Your task to perform on an android device: change alarm snooze length Image 0: 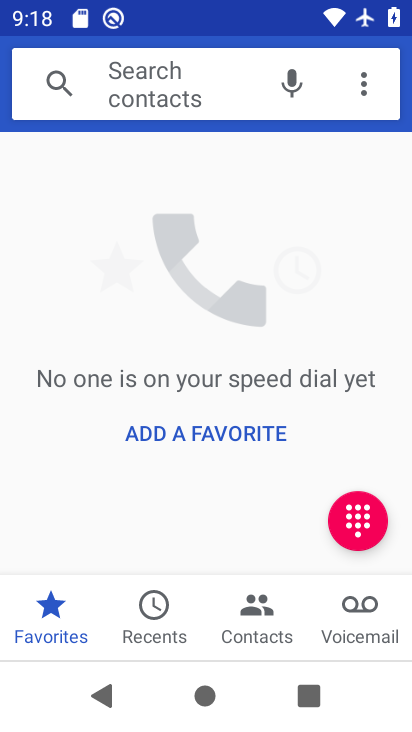
Step 0: press home button
Your task to perform on an android device: change alarm snooze length Image 1: 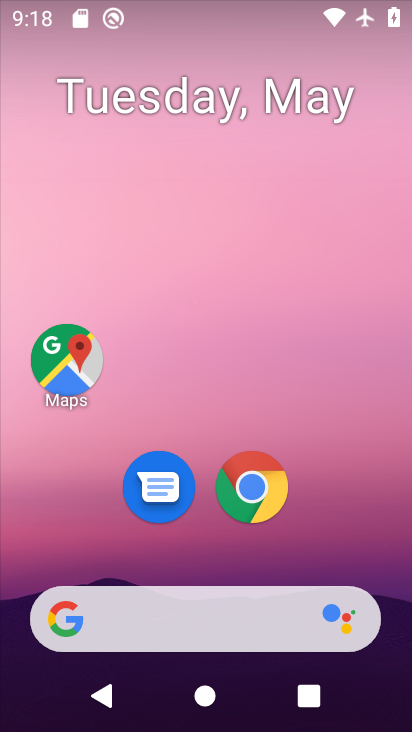
Step 1: drag from (171, 627) to (298, 19)
Your task to perform on an android device: change alarm snooze length Image 2: 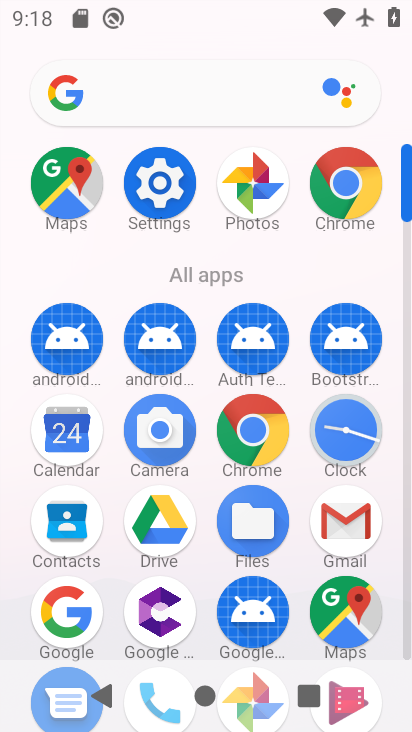
Step 2: click (344, 434)
Your task to perform on an android device: change alarm snooze length Image 3: 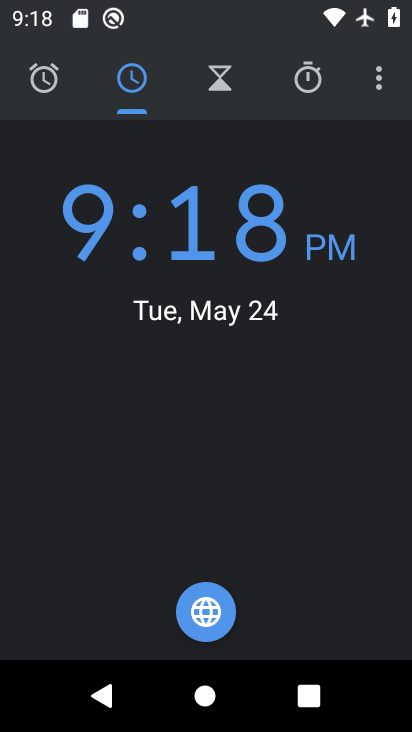
Step 3: click (381, 90)
Your task to perform on an android device: change alarm snooze length Image 4: 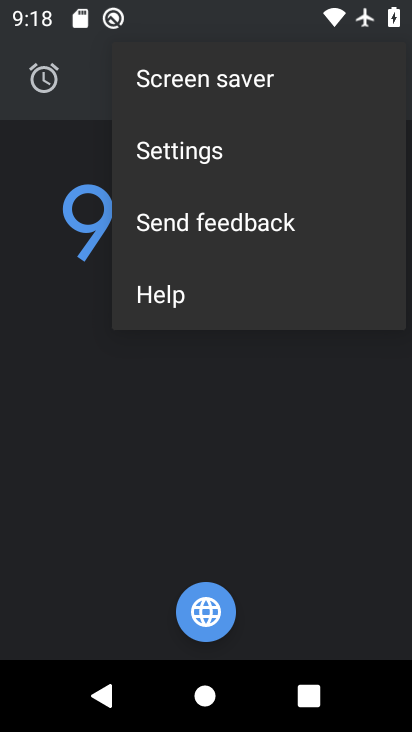
Step 4: click (193, 152)
Your task to perform on an android device: change alarm snooze length Image 5: 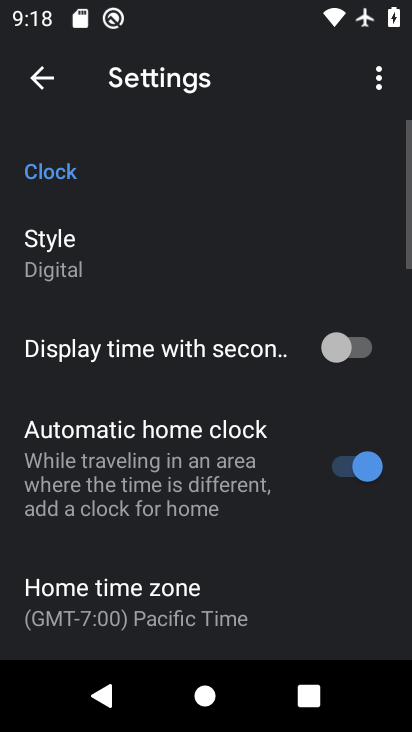
Step 5: drag from (271, 579) to (335, 120)
Your task to perform on an android device: change alarm snooze length Image 6: 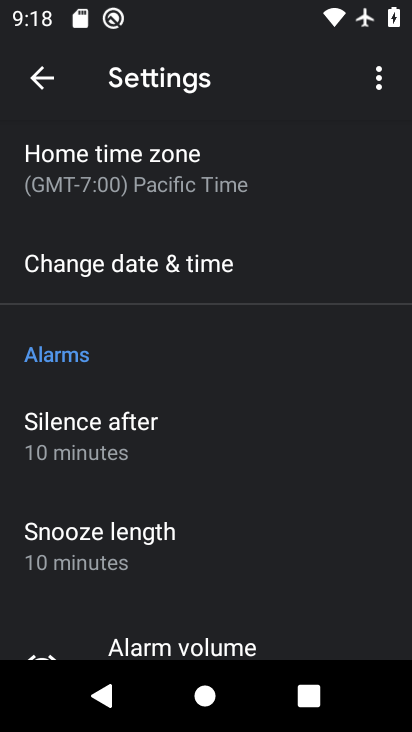
Step 6: click (123, 545)
Your task to perform on an android device: change alarm snooze length Image 7: 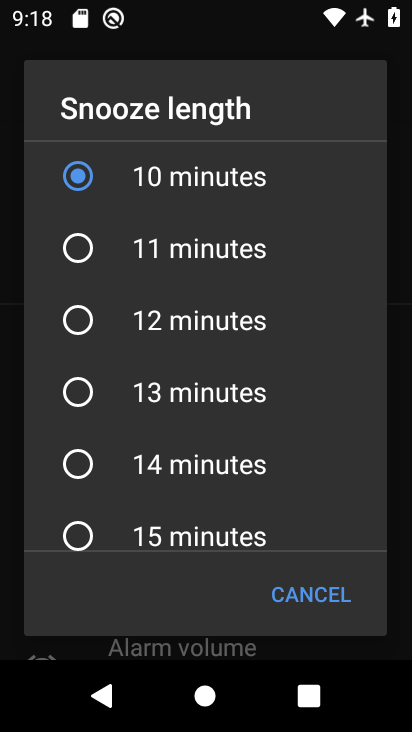
Step 7: drag from (145, 453) to (183, 316)
Your task to perform on an android device: change alarm snooze length Image 8: 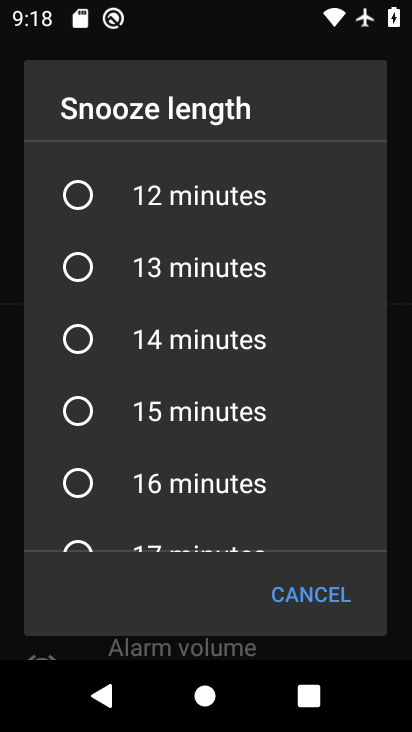
Step 8: click (83, 416)
Your task to perform on an android device: change alarm snooze length Image 9: 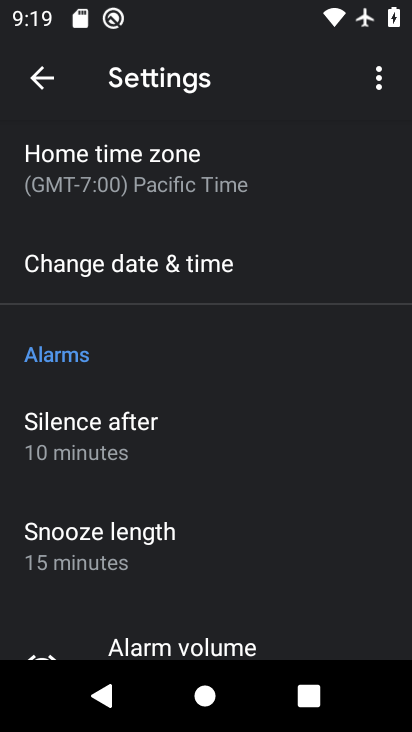
Step 9: task complete